Your task to perform on an android device: Check the news Image 0: 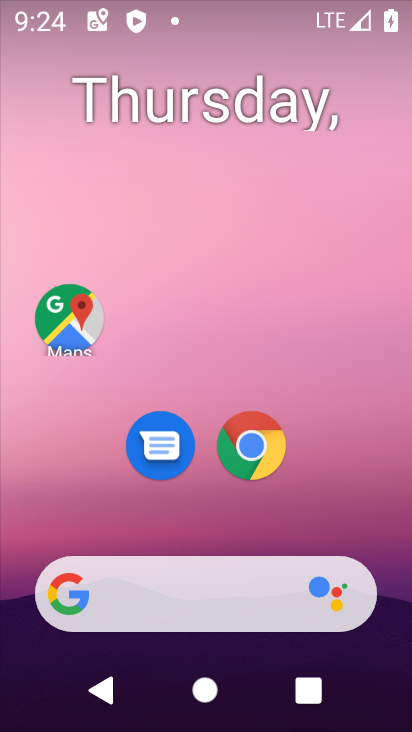
Step 0: drag from (3, 423) to (306, 375)
Your task to perform on an android device: Check the news Image 1: 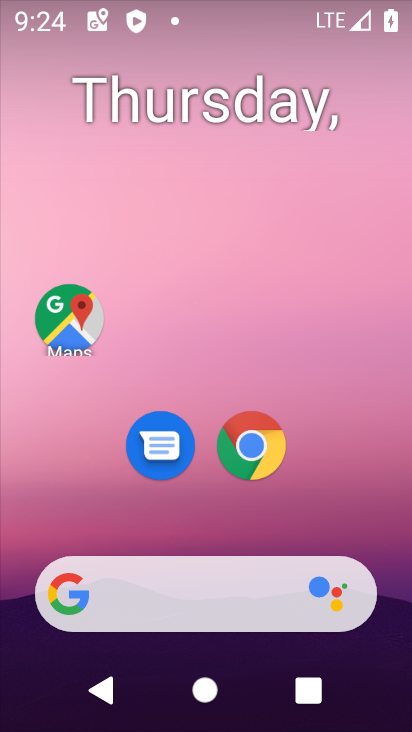
Step 1: task complete